Your task to perform on an android device: Open display settings Image 0: 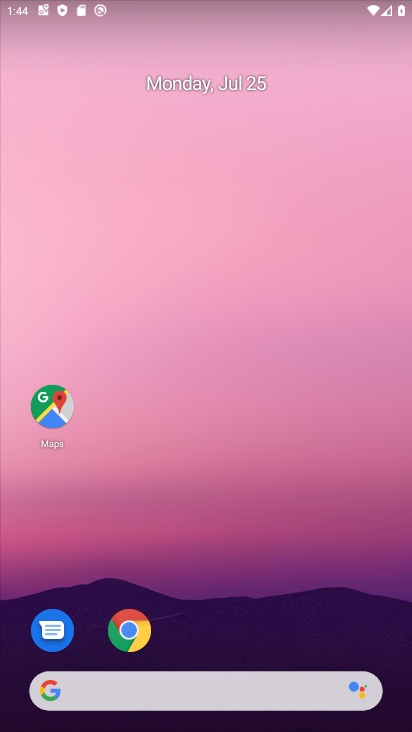
Step 0: drag from (266, 630) to (251, 157)
Your task to perform on an android device: Open display settings Image 1: 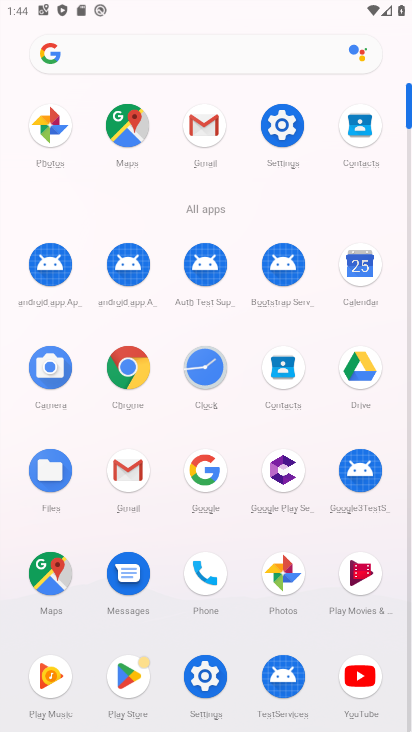
Step 1: click (260, 145)
Your task to perform on an android device: Open display settings Image 2: 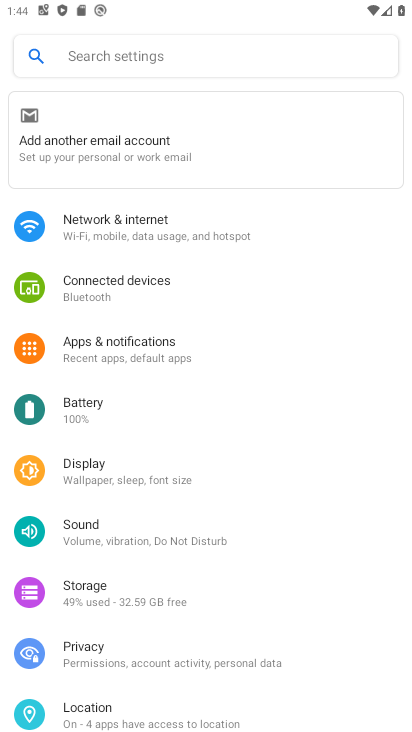
Step 2: click (164, 468)
Your task to perform on an android device: Open display settings Image 3: 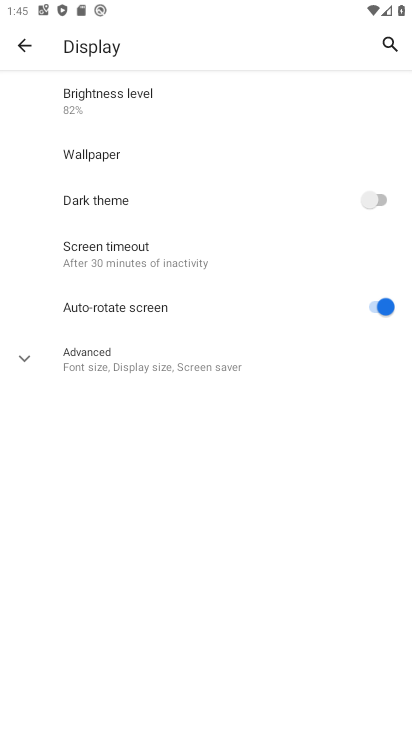
Step 3: task complete